Your task to perform on an android device: turn notification dots off Image 0: 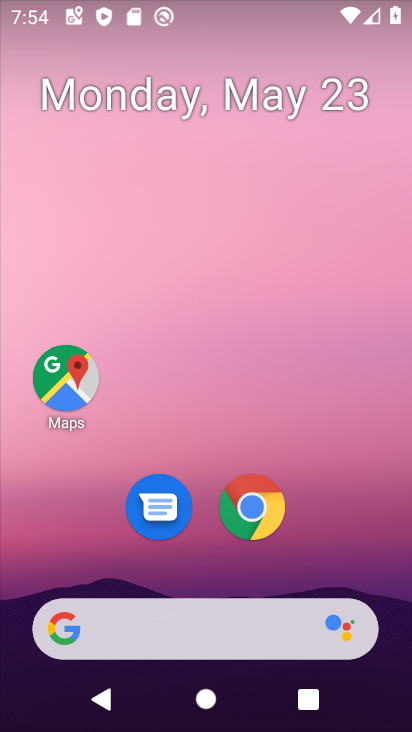
Step 0: drag from (356, 526) to (336, 113)
Your task to perform on an android device: turn notification dots off Image 1: 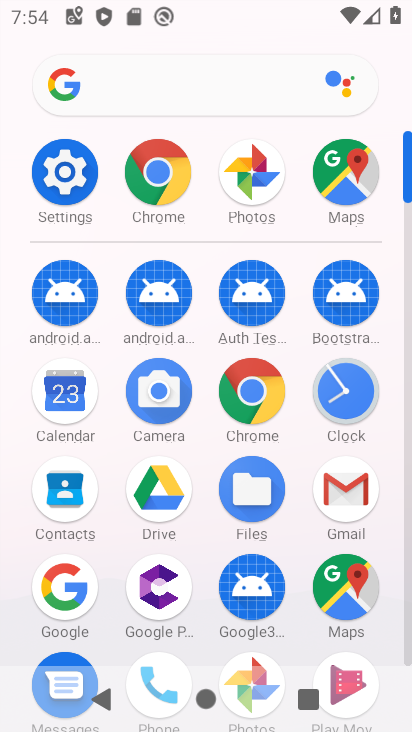
Step 1: click (67, 179)
Your task to perform on an android device: turn notification dots off Image 2: 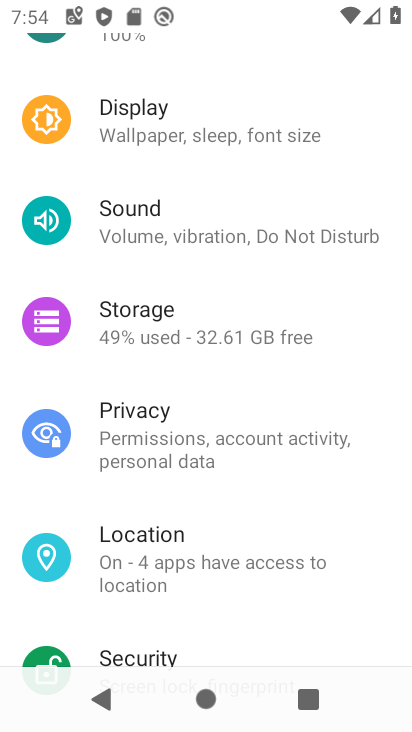
Step 2: drag from (186, 198) to (172, 523)
Your task to perform on an android device: turn notification dots off Image 3: 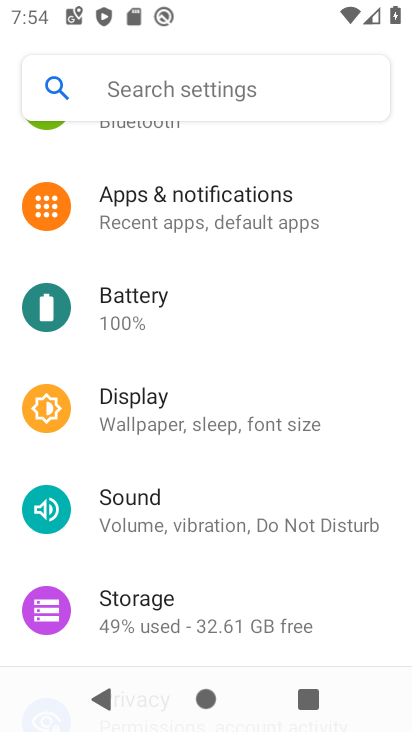
Step 3: click (164, 194)
Your task to perform on an android device: turn notification dots off Image 4: 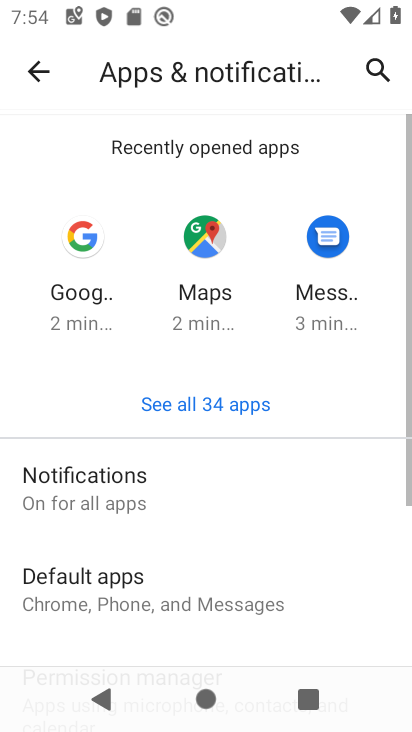
Step 4: click (115, 489)
Your task to perform on an android device: turn notification dots off Image 5: 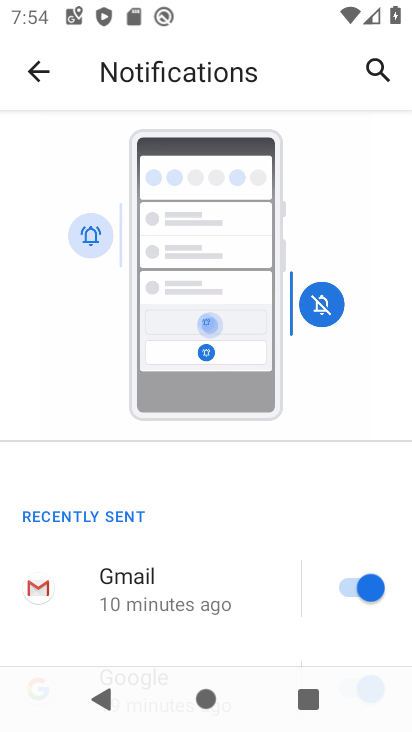
Step 5: drag from (217, 575) to (266, 181)
Your task to perform on an android device: turn notification dots off Image 6: 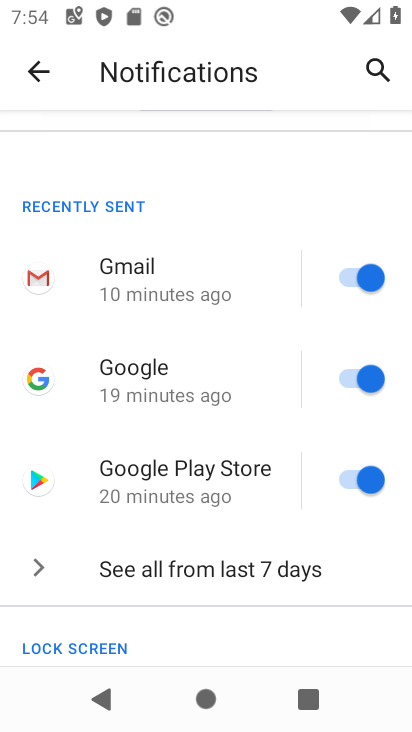
Step 6: drag from (226, 614) to (229, 207)
Your task to perform on an android device: turn notification dots off Image 7: 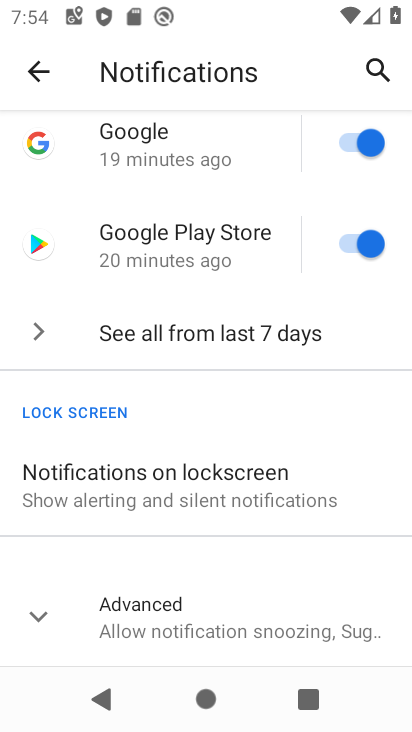
Step 7: click (266, 630)
Your task to perform on an android device: turn notification dots off Image 8: 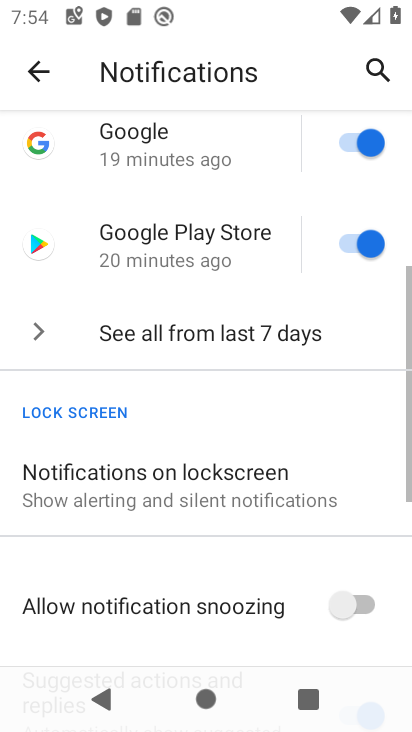
Step 8: drag from (265, 624) to (253, 281)
Your task to perform on an android device: turn notification dots off Image 9: 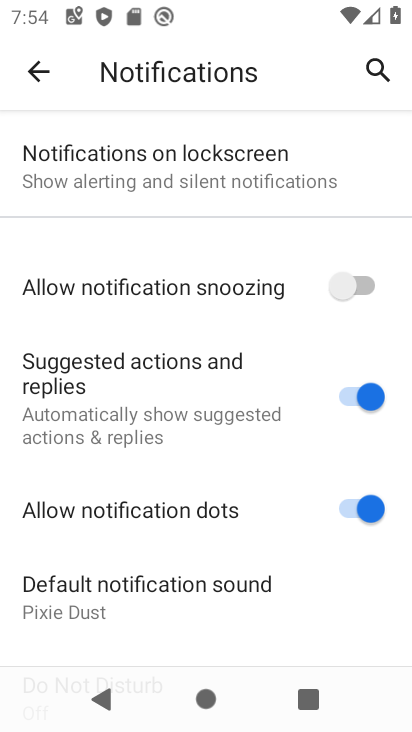
Step 9: click (352, 509)
Your task to perform on an android device: turn notification dots off Image 10: 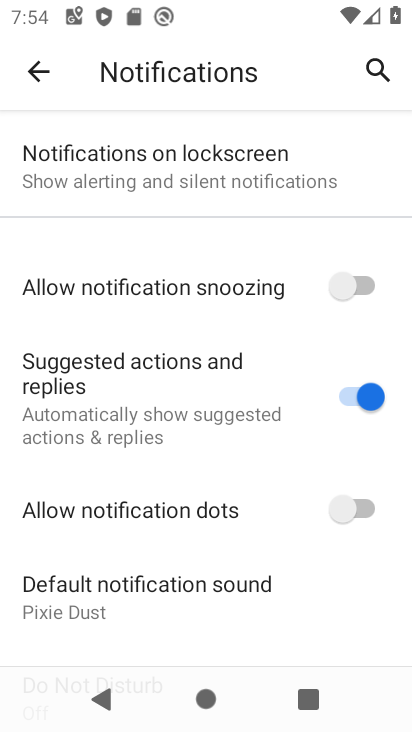
Step 10: task complete